Your task to perform on an android device: turn off notifications settings in the gmail app Image 0: 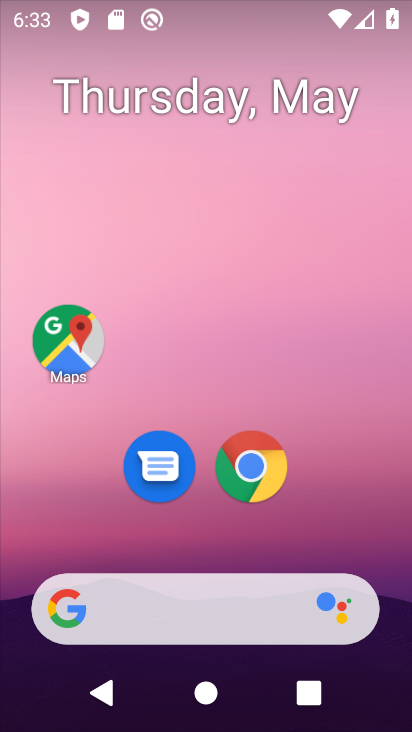
Step 0: drag from (334, 517) to (181, 19)
Your task to perform on an android device: turn off notifications settings in the gmail app Image 1: 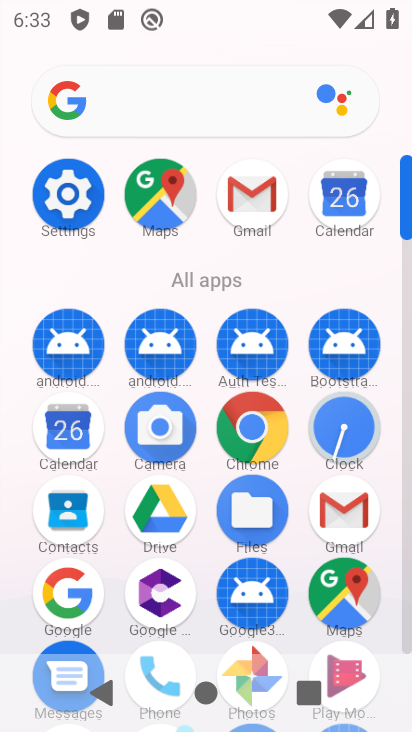
Step 1: click (250, 191)
Your task to perform on an android device: turn off notifications settings in the gmail app Image 2: 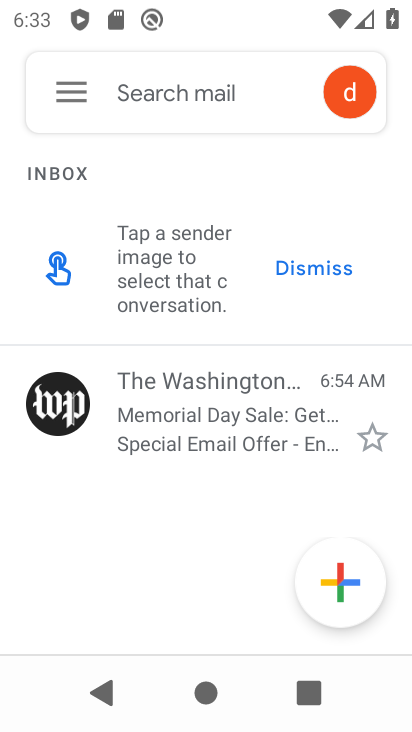
Step 2: click (70, 100)
Your task to perform on an android device: turn off notifications settings in the gmail app Image 3: 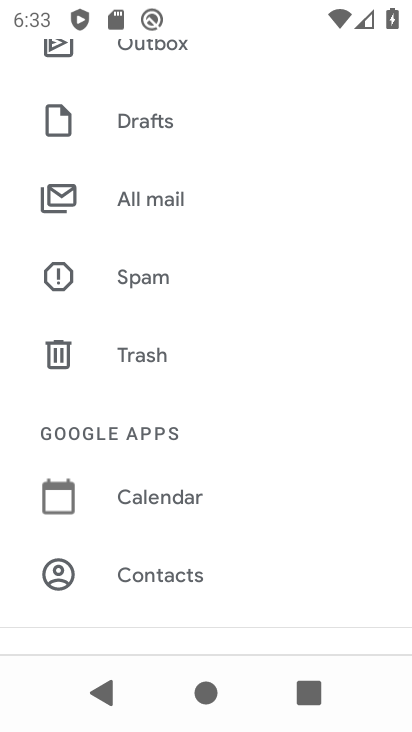
Step 3: drag from (203, 537) to (154, 275)
Your task to perform on an android device: turn off notifications settings in the gmail app Image 4: 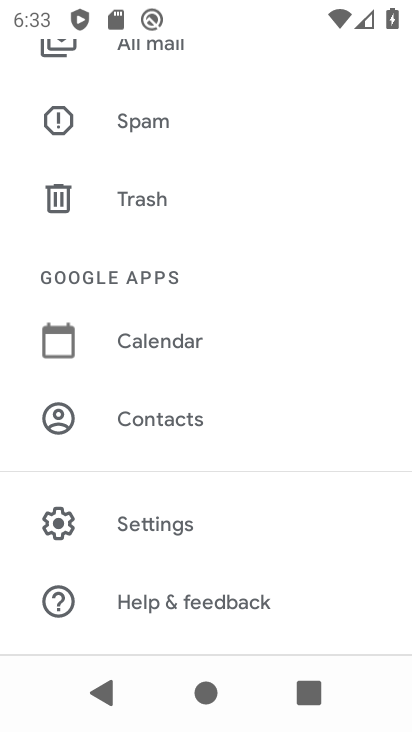
Step 4: click (133, 520)
Your task to perform on an android device: turn off notifications settings in the gmail app Image 5: 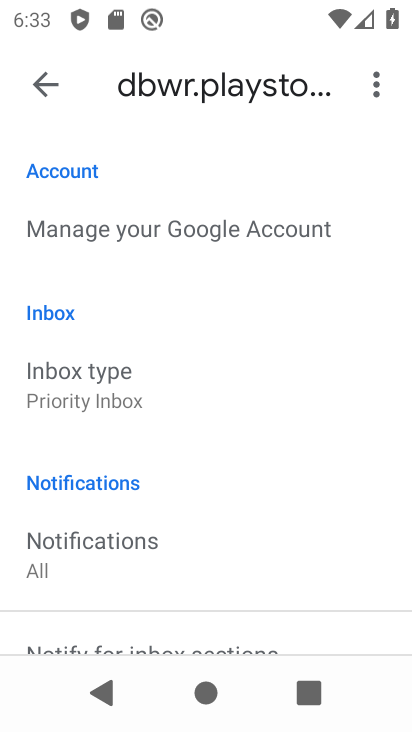
Step 5: click (51, 77)
Your task to perform on an android device: turn off notifications settings in the gmail app Image 6: 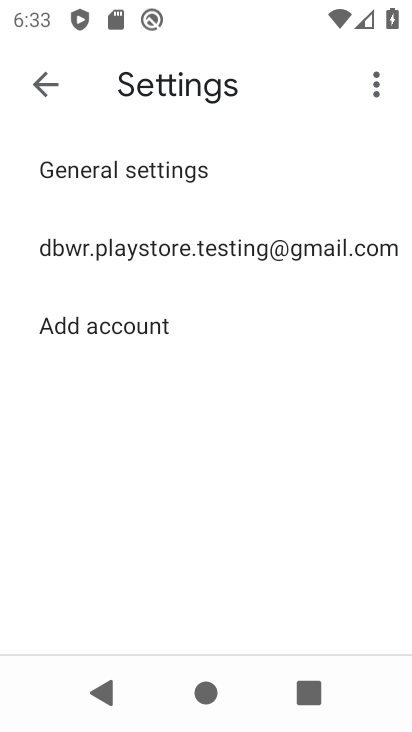
Step 6: click (156, 162)
Your task to perform on an android device: turn off notifications settings in the gmail app Image 7: 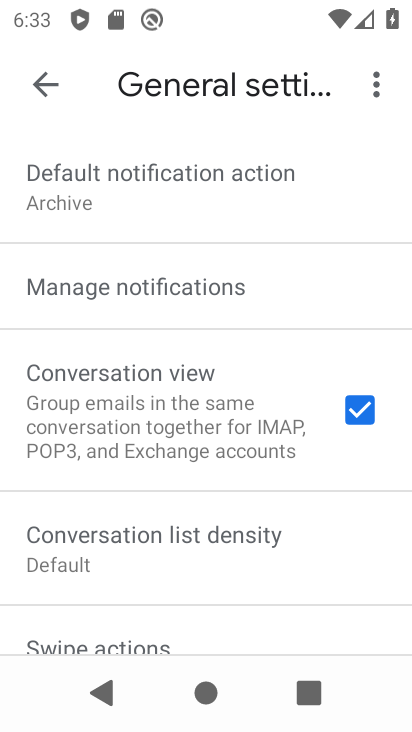
Step 7: click (178, 294)
Your task to perform on an android device: turn off notifications settings in the gmail app Image 8: 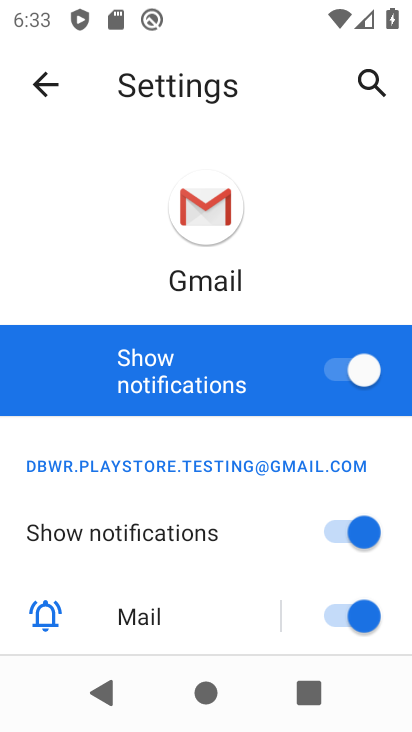
Step 8: click (365, 377)
Your task to perform on an android device: turn off notifications settings in the gmail app Image 9: 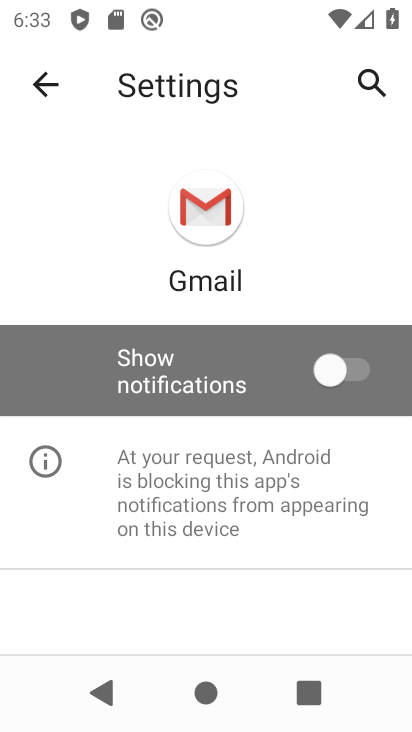
Step 9: task complete